Your task to perform on an android device: Open my contact list Image 0: 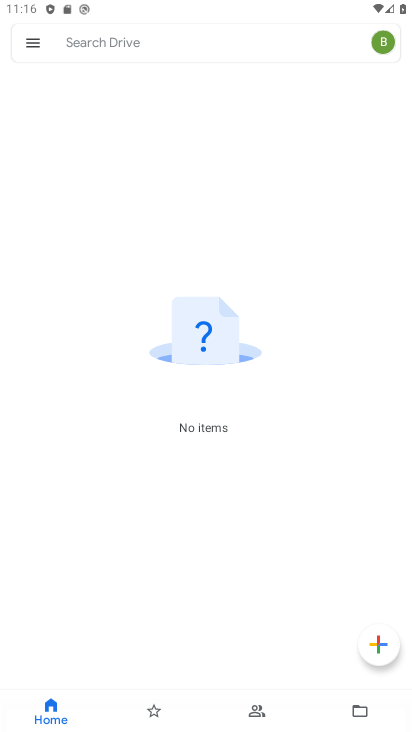
Step 0: press home button
Your task to perform on an android device: Open my contact list Image 1: 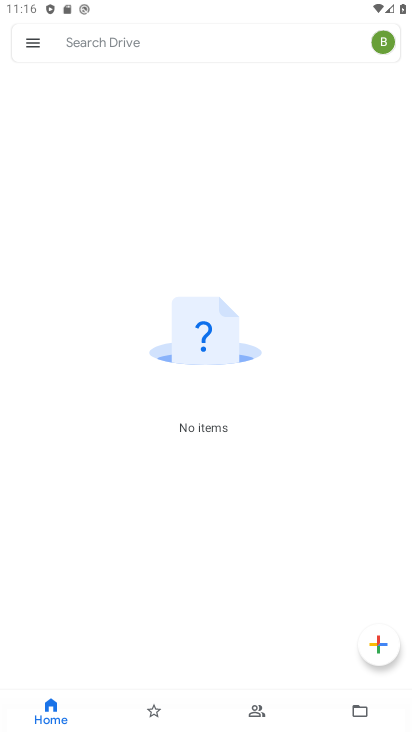
Step 1: press home button
Your task to perform on an android device: Open my contact list Image 2: 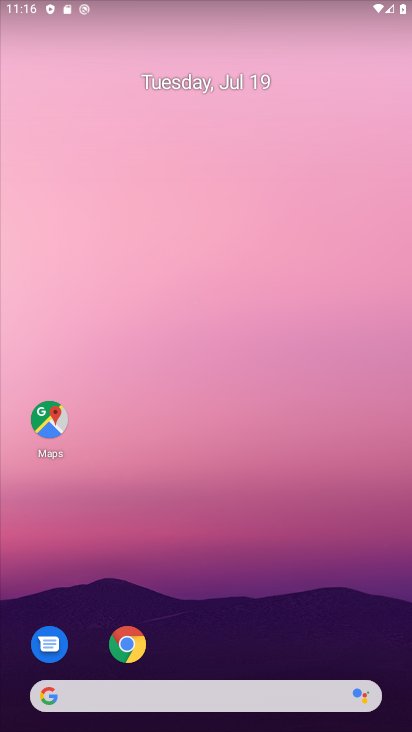
Step 2: drag from (211, 647) to (245, 275)
Your task to perform on an android device: Open my contact list Image 3: 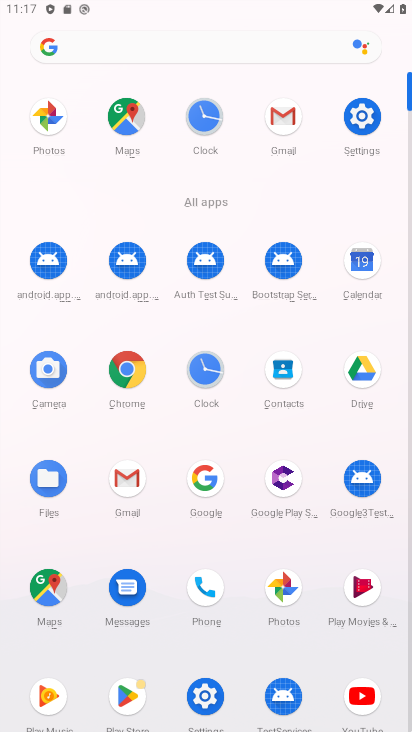
Step 3: click (269, 369)
Your task to perform on an android device: Open my contact list Image 4: 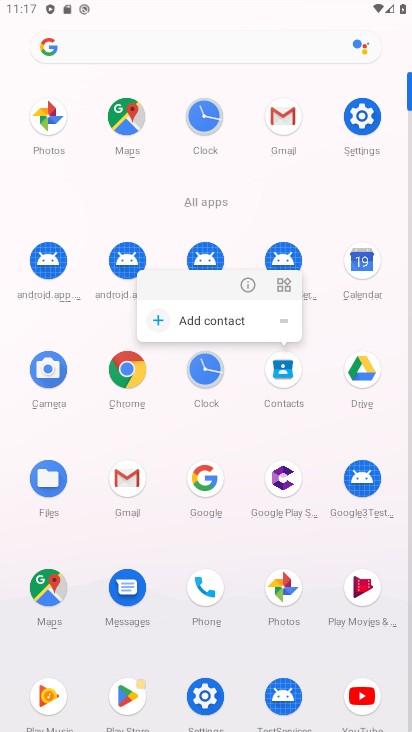
Step 4: click (242, 281)
Your task to perform on an android device: Open my contact list Image 5: 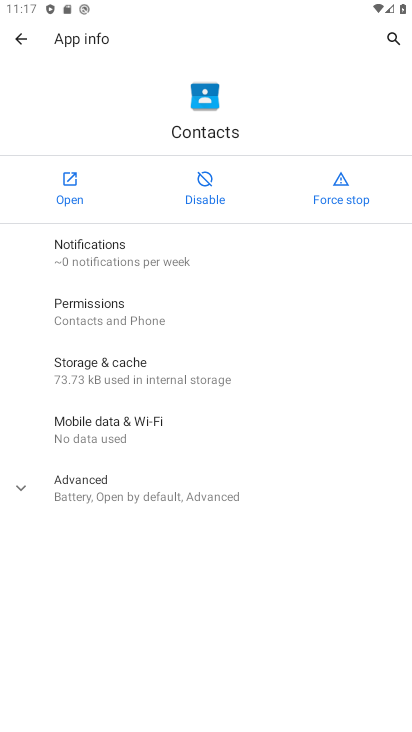
Step 5: click (50, 186)
Your task to perform on an android device: Open my contact list Image 6: 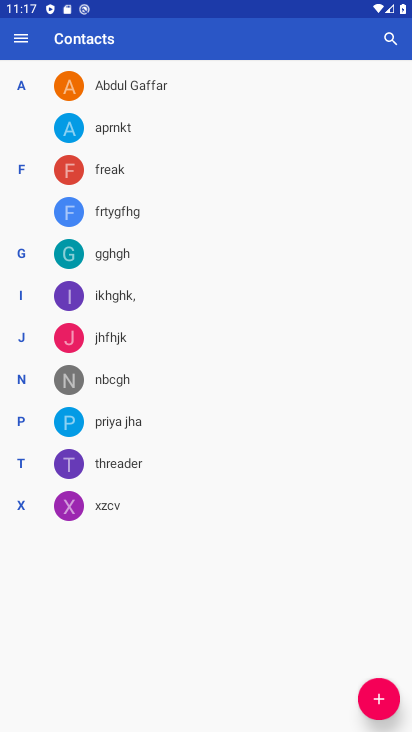
Step 6: task complete